Your task to perform on an android device: What's the weather going to be this weekend? Image 0: 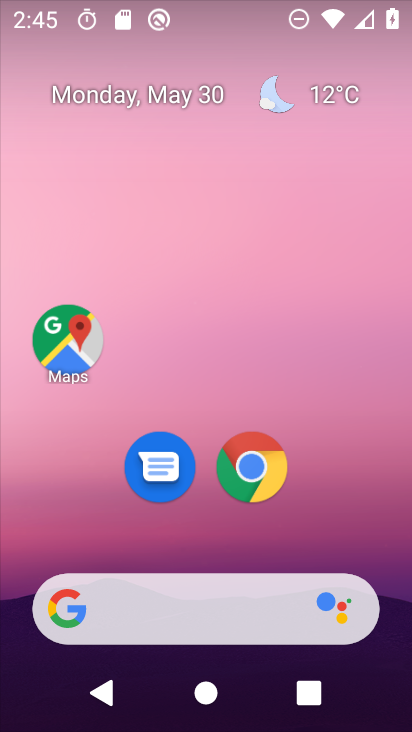
Step 0: drag from (388, 647) to (333, 210)
Your task to perform on an android device: What's the weather going to be this weekend? Image 1: 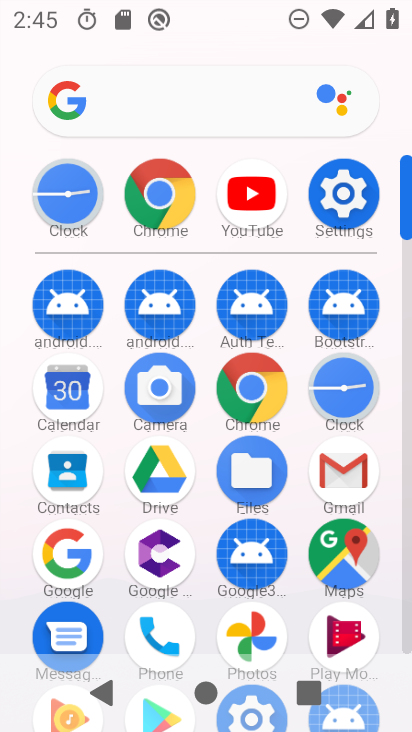
Step 1: click (74, 560)
Your task to perform on an android device: What's the weather going to be this weekend? Image 2: 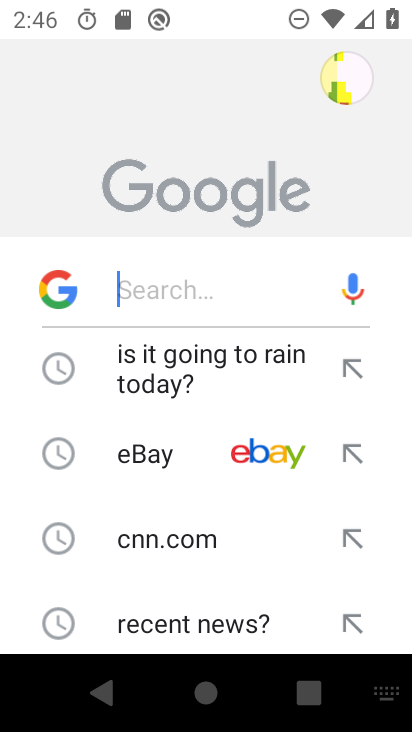
Step 2: press home button
Your task to perform on an android device: What's the weather going to be this weekend? Image 3: 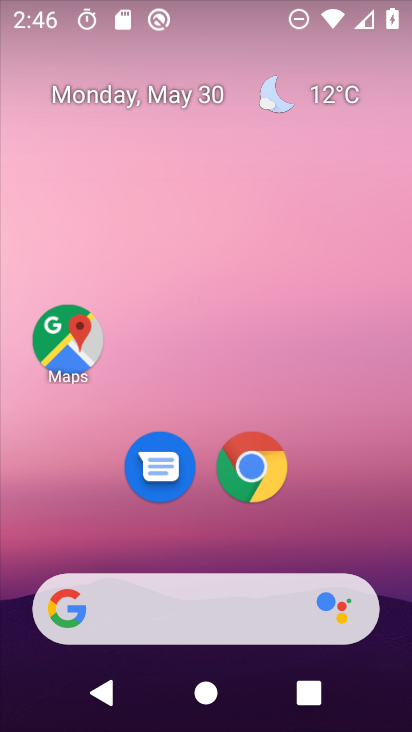
Step 3: click (342, 96)
Your task to perform on an android device: What's the weather going to be this weekend? Image 4: 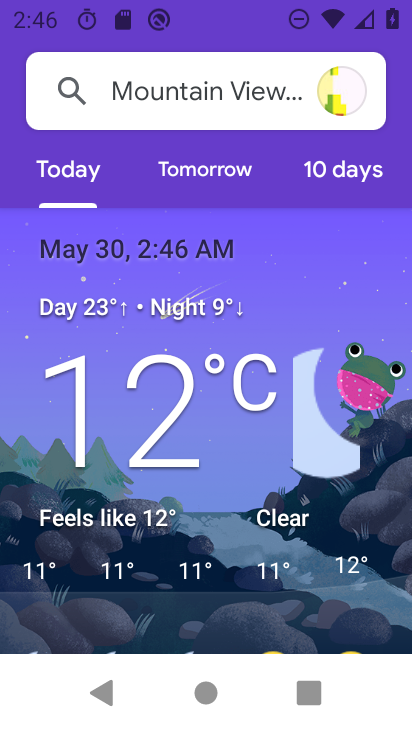
Step 4: click (313, 171)
Your task to perform on an android device: What's the weather going to be this weekend? Image 5: 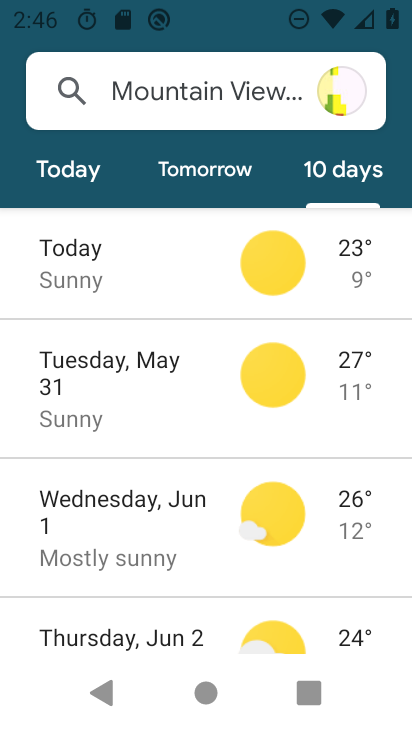
Step 5: task complete